Your task to perform on an android device: find which apps use the phone's location Image 0: 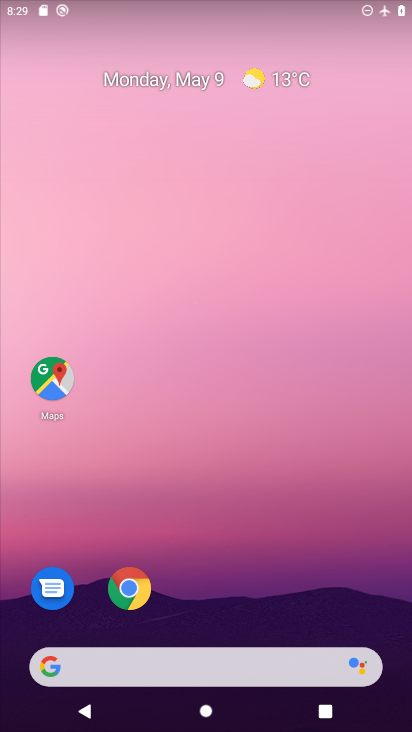
Step 0: drag from (373, 574) to (273, 125)
Your task to perform on an android device: find which apps use the phone's location Image 1: 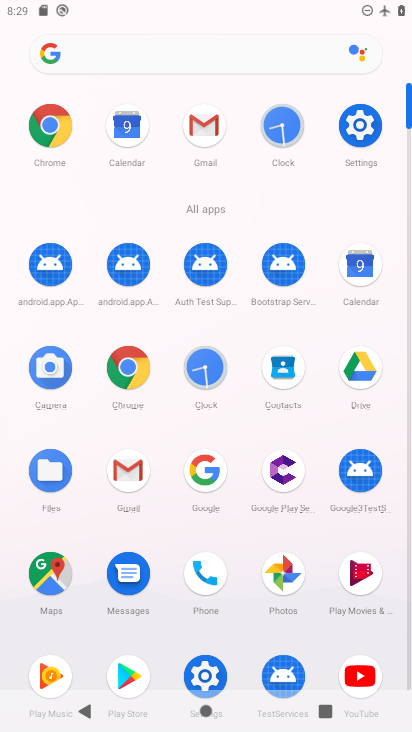
Step 1: click (362, 126)
Your task to perform on an android device: find which apps use the phone's location Image 2: 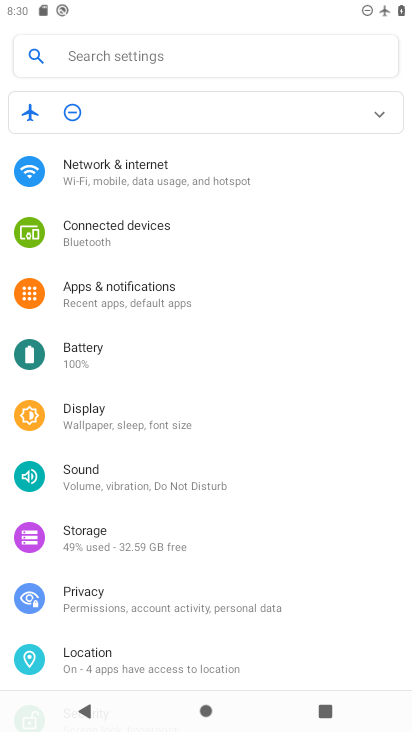
Step 2: click (212, 647)
Your task to perform on an android device: find which apps use the phone's location Image 3: 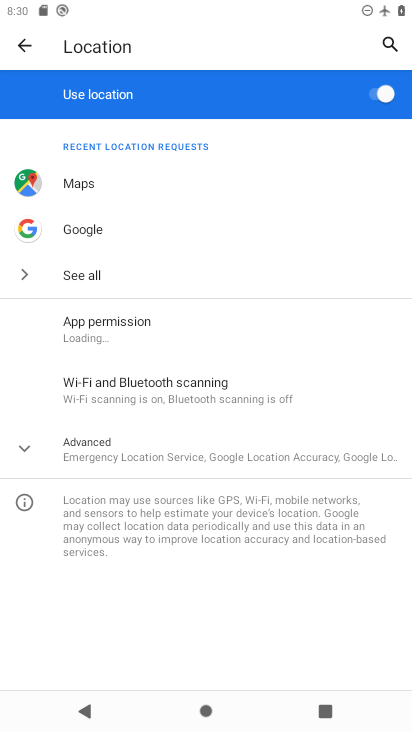
Step 3: click (288, 318)
Your task to perform on an android device: find which apps use the phone's location Image 4: 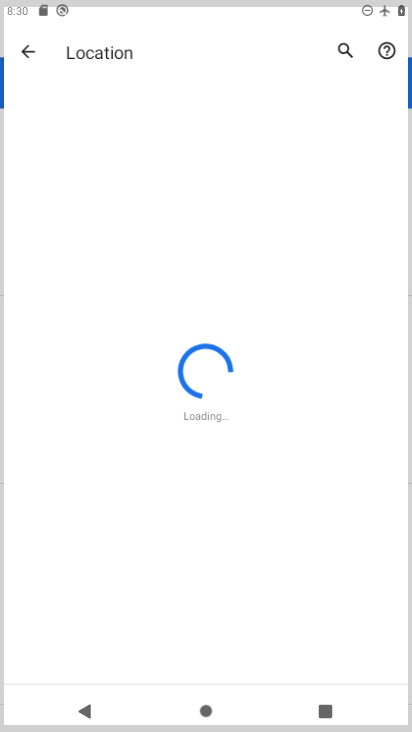
Step 4: task complete